Your task to perform on an android device: Go to accessibility settings Image 0: 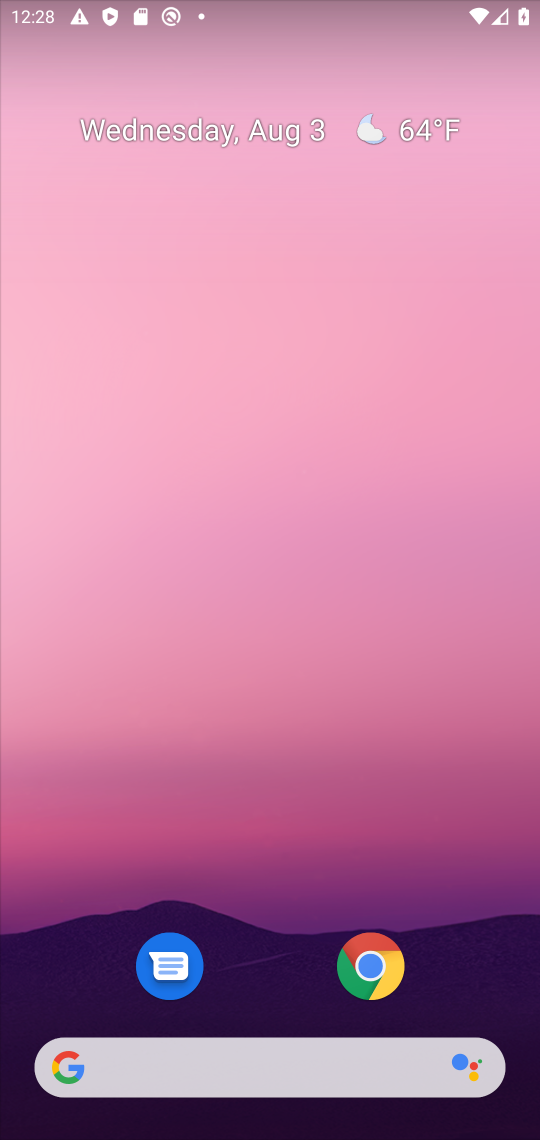
Step 0: drag from (240, 866) to (240, 288)
Your task to perform on an android device: Go to accessibility settings Image 1: 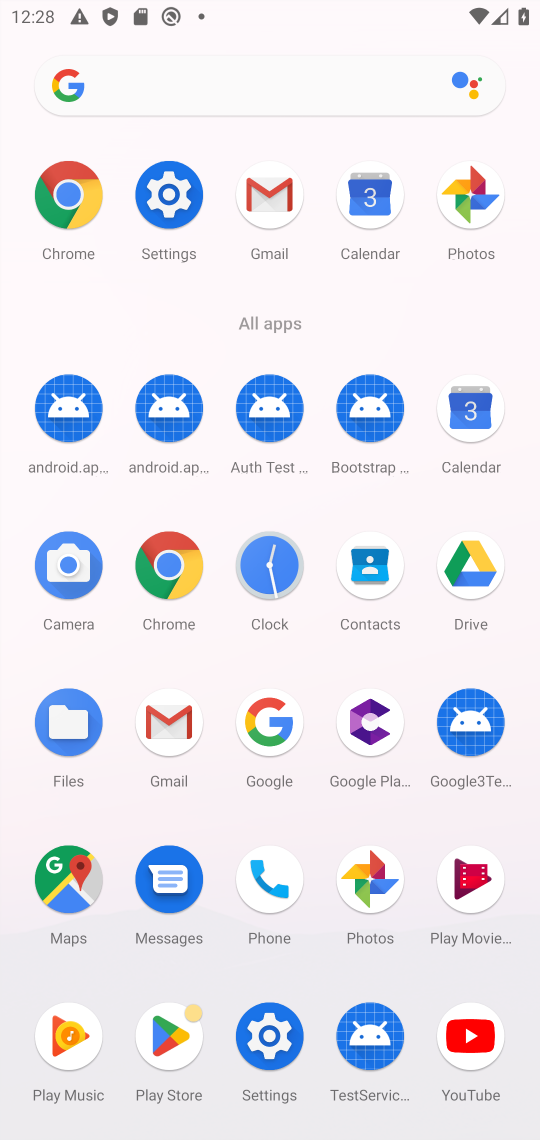
Step 1: click (167, 192)
Your task to perform on an android device: Go to accessibility settings Image 2: 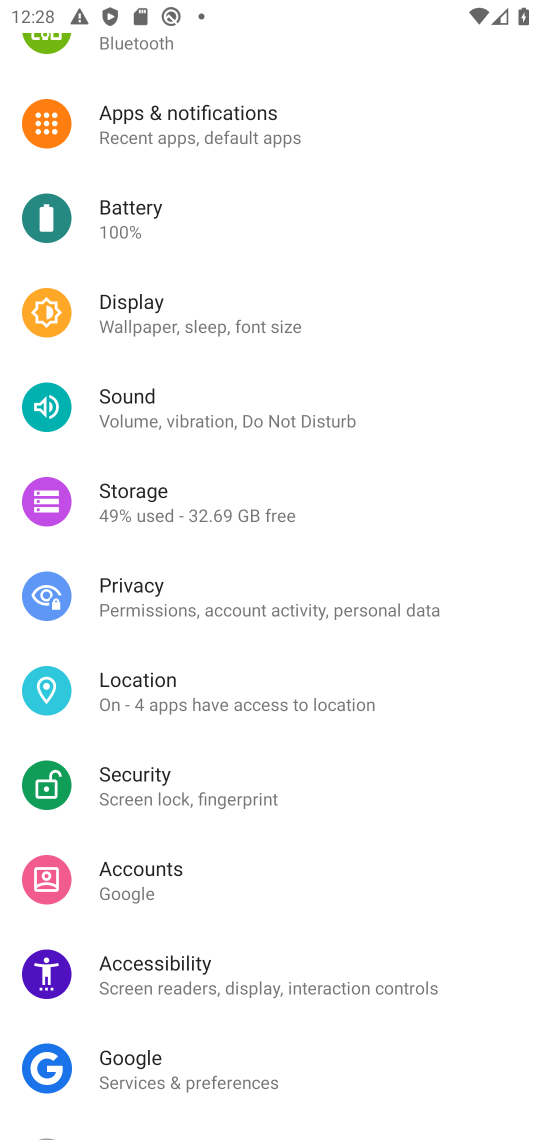
Step 2: click (258, 984)
Your task to perform on an android device: Go to accessibility settings Image 3: 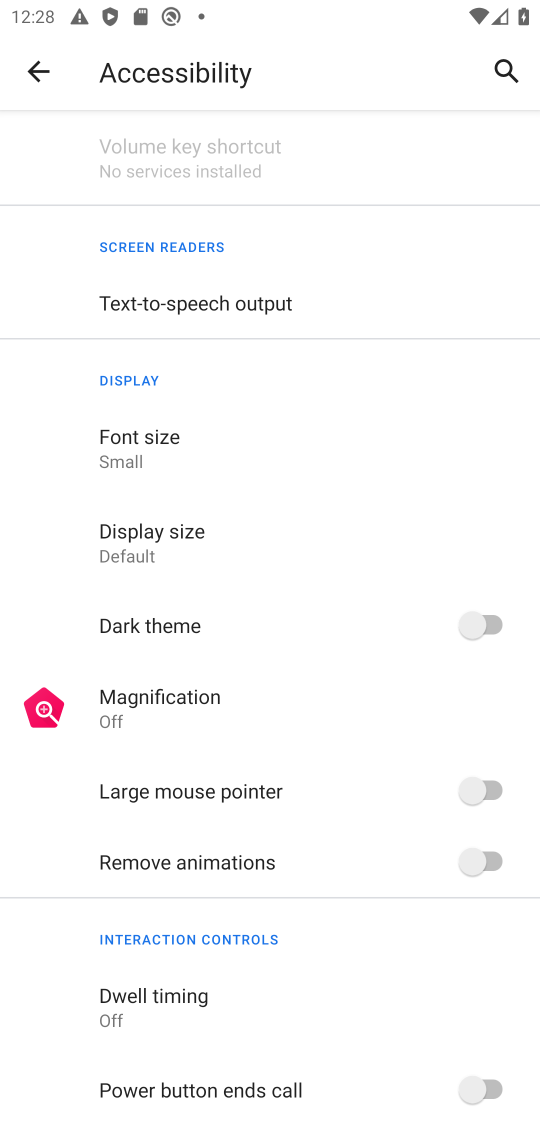
Step 3: task complete